Your task to perform on an android device: toggle airplane mode Image 0: 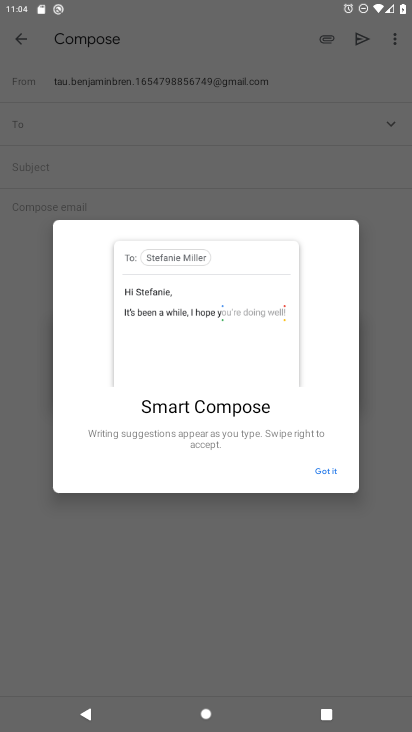
Step 0: press home button
Your task to perform on an android device: toggle airplane mode Image 1: 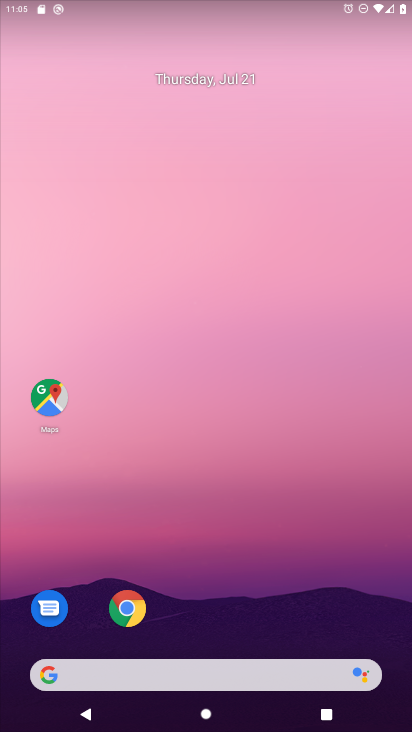
Step 1: drag from (232, 3) to (300, 638)
Your task to perform on an android device: toggle airplane mode Image 2: 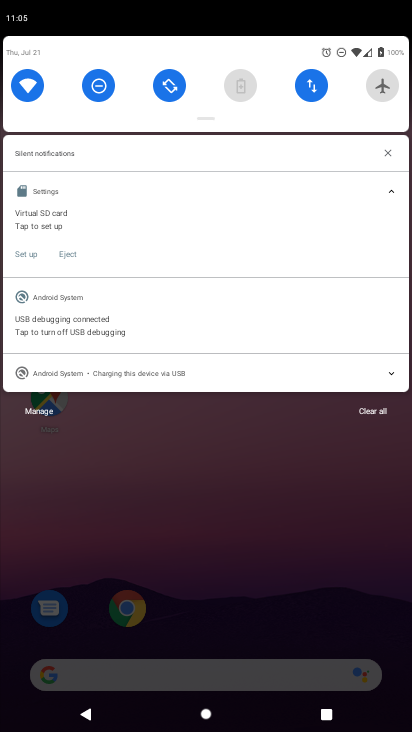
Step 2: click (375, 80)
Your task to perform on an android device: toggle airplane mode Image 3: 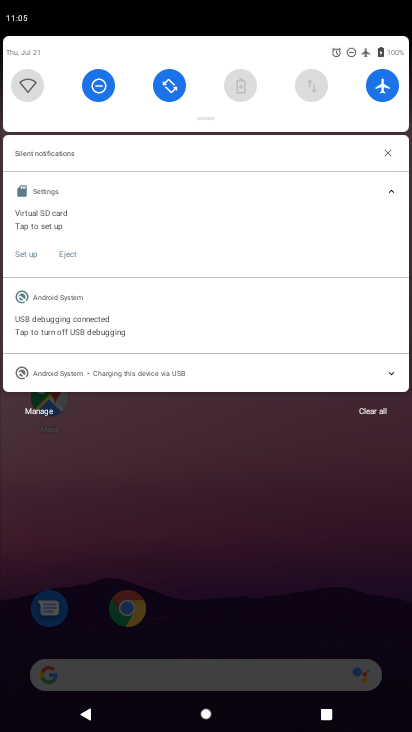
Step 3: task complete